Your task to perform on an android device: Go to privacy settings Image 0: 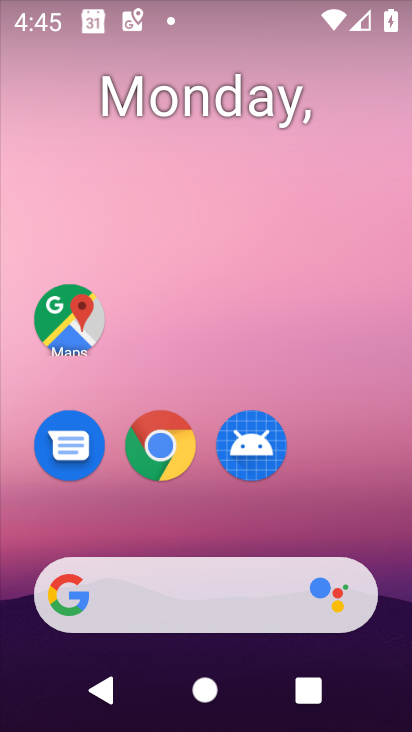
Step 0: drag from (330, 483) to (397, 411)
Your task to perform on an android device: Go to privacy settings Image 1: 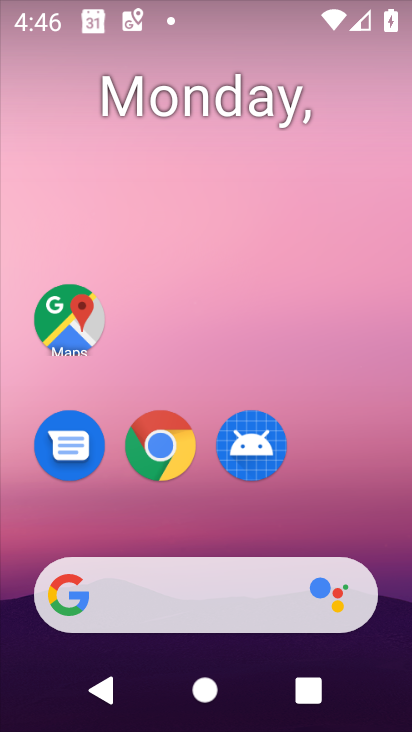
Step 1: drag from (300, 517) to (331, 17)
Your task to perform on an android device: Go to privacy settings Image 2: 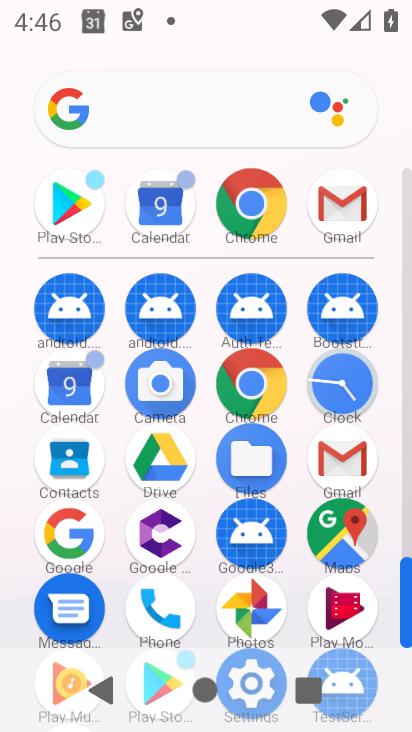
Step 2: drag from (399, 583) to (393, 709)
Your task to perform on an android device: Go to privacy settings Image 3: 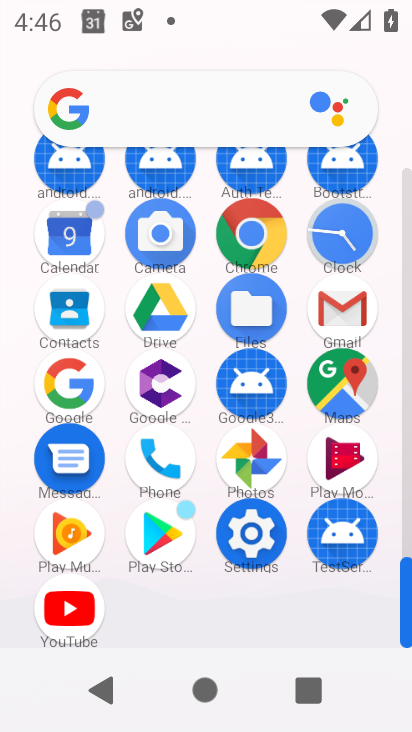
Step 3: click (233, 565)
Your task to perform on an android device: Go to privacy settings Image 4: 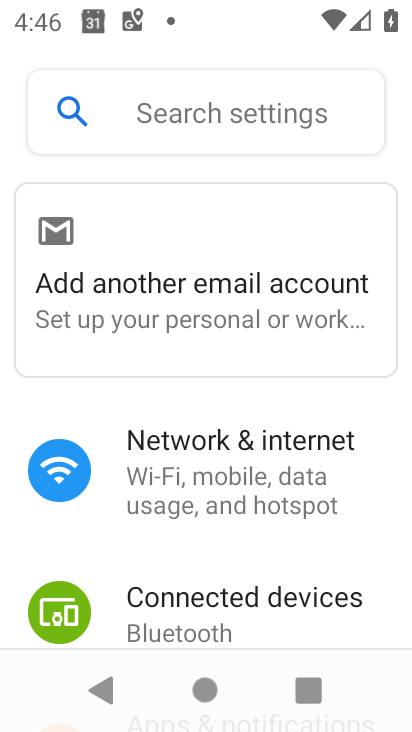
Step 4: drag from (216, 559) to (223, 222)
Your task to perform on an android device: Go to privacy settings Image 5: 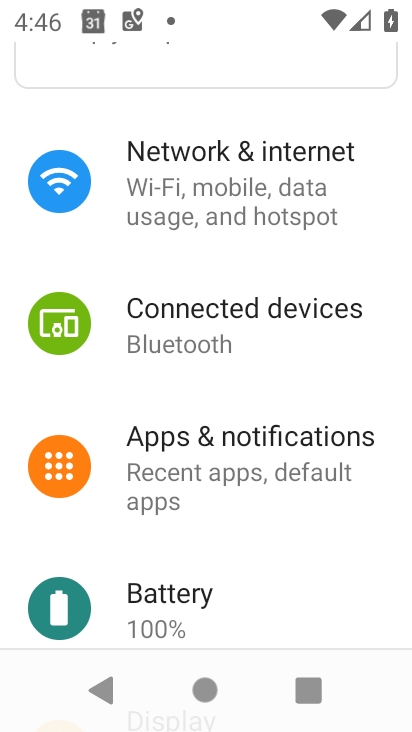
Step 5: drag from (152, 539) to (163, 248)
Your task to perform on an android device: Go to privacy settings Image 6: 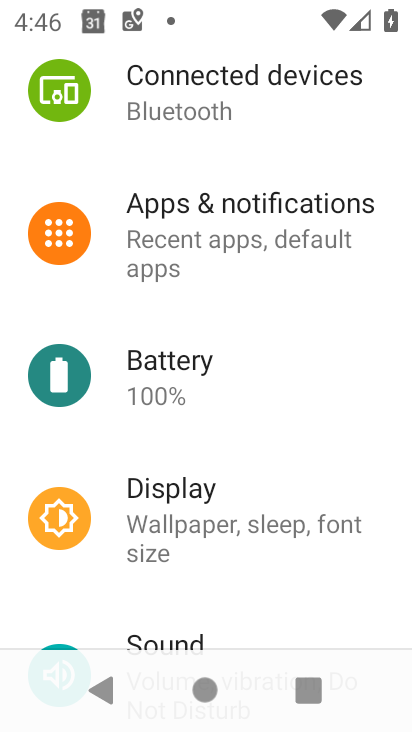
Step 6: drag from (144, 526) to (157, 314)
Your task to perform on an android device: Go to privacy settings Image 7: 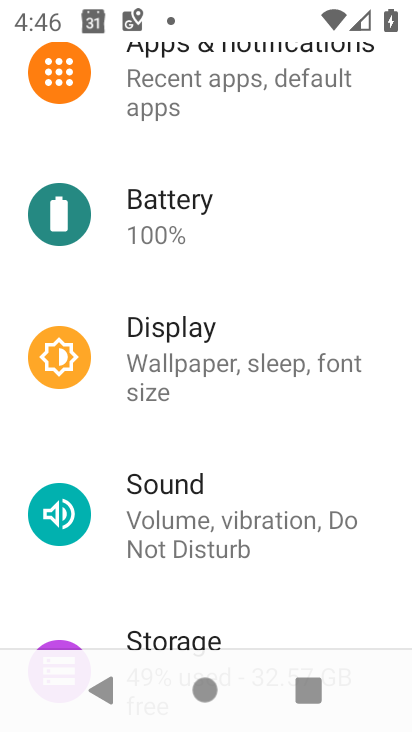
Step 7: drag from (105, 565) to (113, 395)
Your task to perform on an android device: Go to privacy settings Image 8: 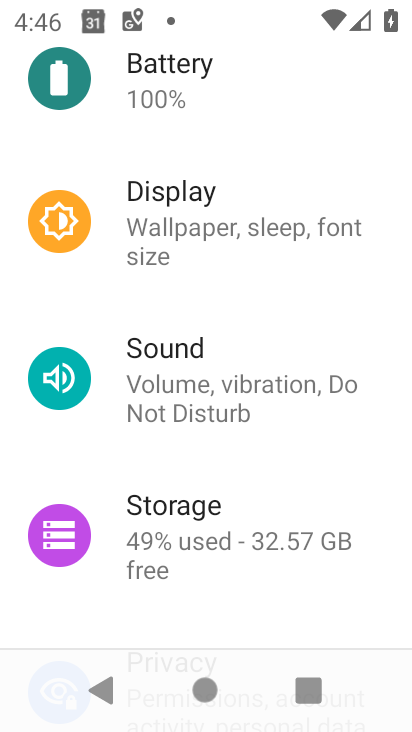
Step 8: drag from (108, 611) to (107, 485)
Your task to perform on an android device: Go to privacy settings Image 9: 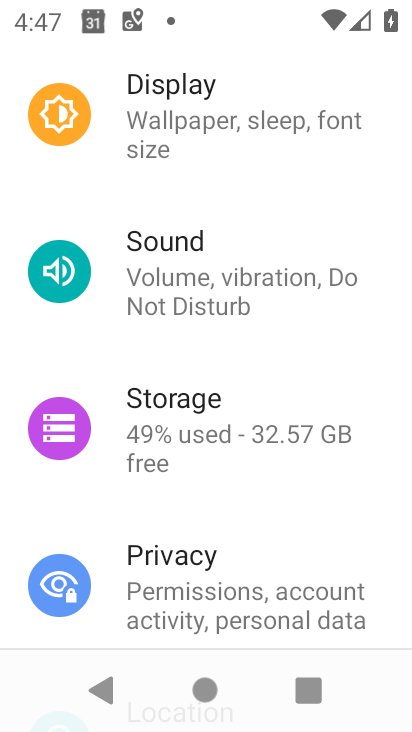
Step 9: click (148, 560)
Your task to perform on an android device: Go to privacy settings Image 10: 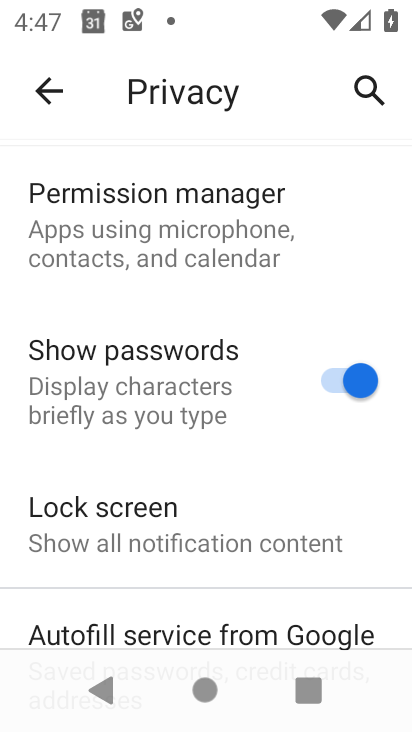
Step 10: task complete